Your task to perform on an android device: Open Google Chrome and open the bookmarks view Image 0: 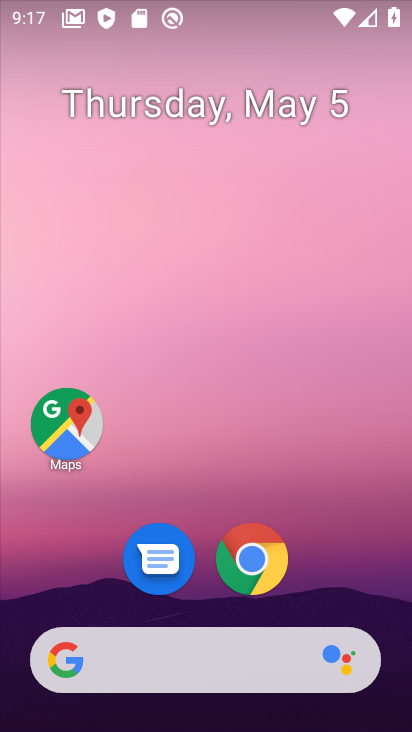
Step 0: click (254, 557)
Your task to perform on an android device: Open Google Chrome and open the bookmarks view Image 1: 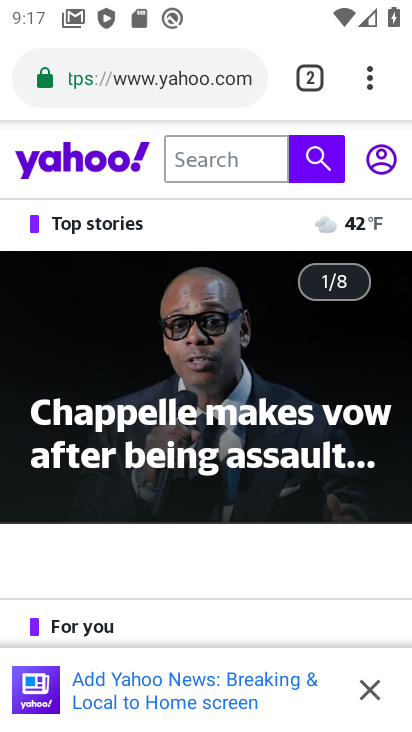
Step 1: click (369, 71)
Your task to perform on an android device: Open Google Chrome and open the bookmarks view Image 2: 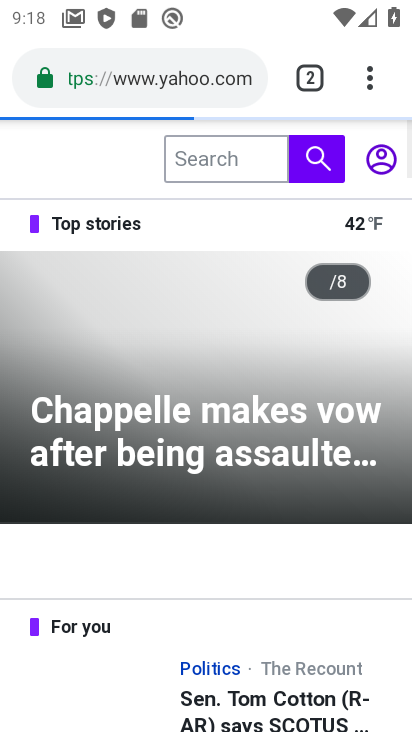
Step 2: click (366, 79)
Your task to perform on an android device: Open Google Chrome and open the bookmarks view Image 3: 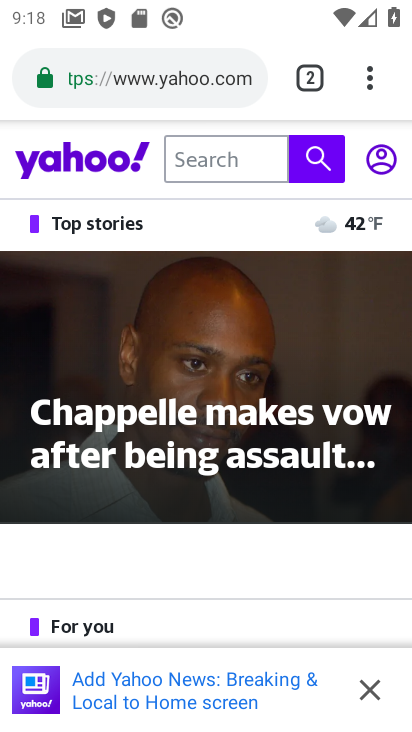
Step 3: click (366, 79)
Your task to perform on an android device: Open Google Chrome and open the bookmarks view Image 4: 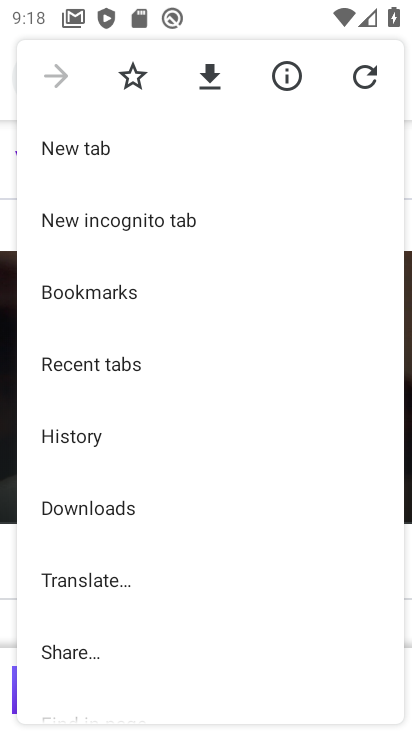
Step 4: click (90, 288)
Your task to perform on an android device: Open Google Chrome and open the bookmarks view Image 5: 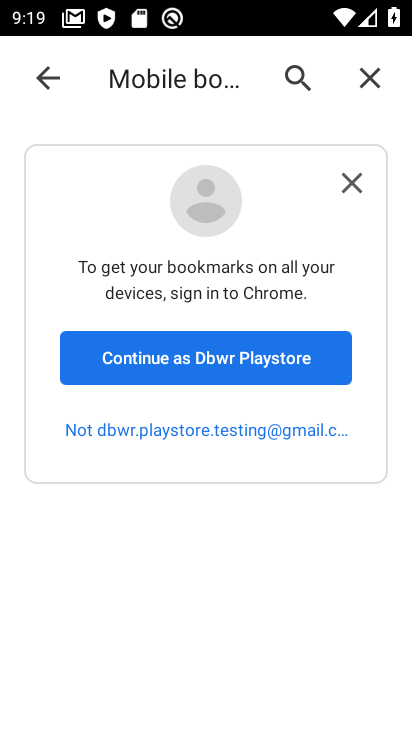
Step 5: task complete